Your task to perform on an android device: set the timer Image 0: 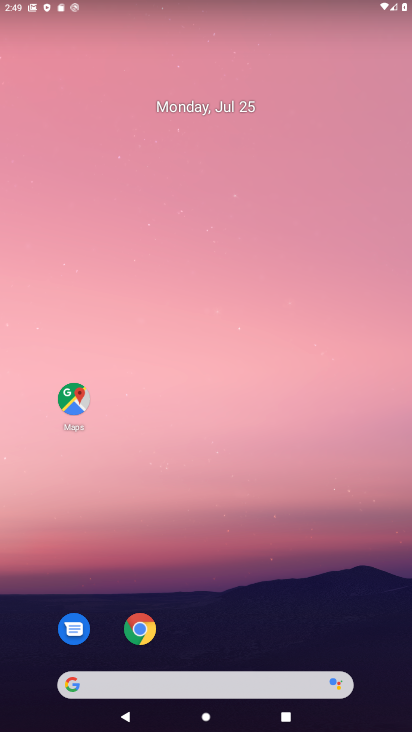
Step 0: drag from (341, 620) to (276, 264)
Your task to perform on an android device: set the timer Image 1: 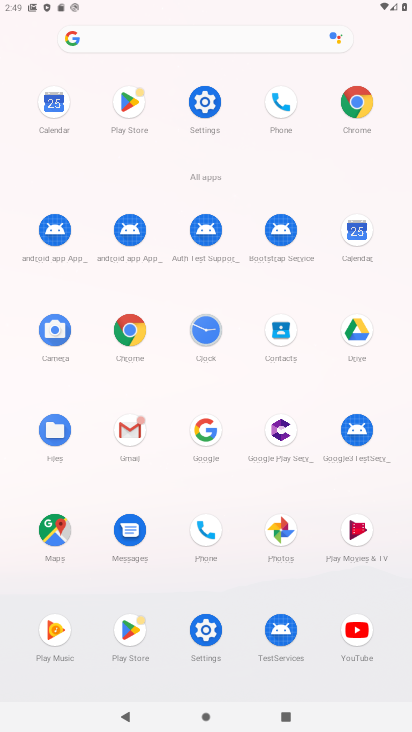
Step 1: click (205, 330)
Your task to perform on an android device: set the timer Image 2: 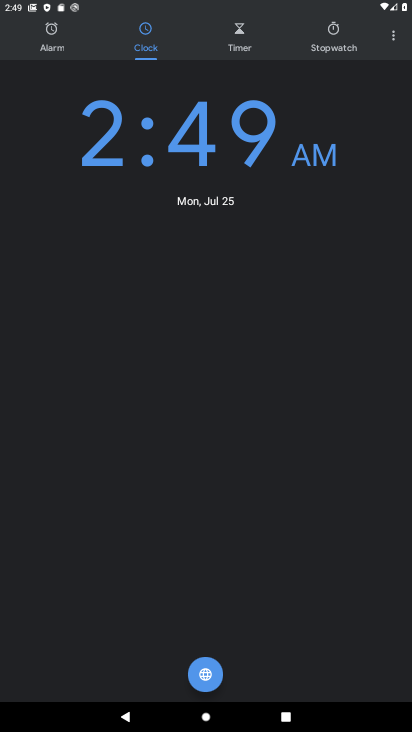
Step 2: click (252, 48)
Your task to perform on an android device: set the timer Image 3: 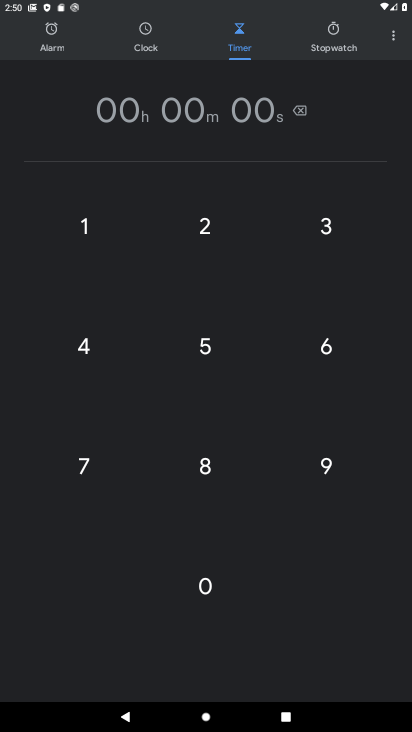
Step 3: type "94u8u48u9"
Your task to perform on an android device: set the timer Image 4: 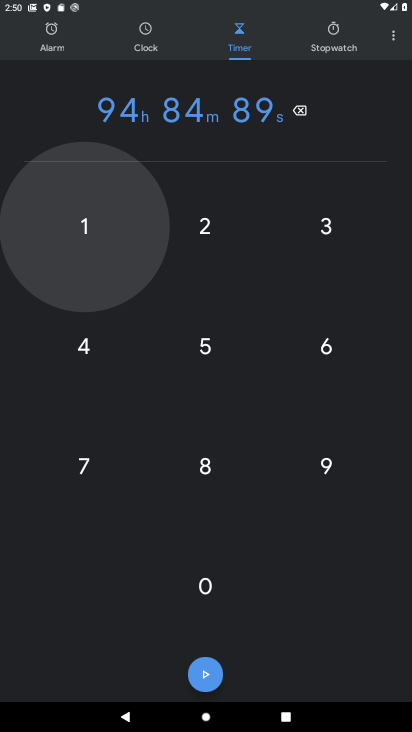
Step 4: click (214, 676)
Your task to perform on an android device: set the timer Image 5: 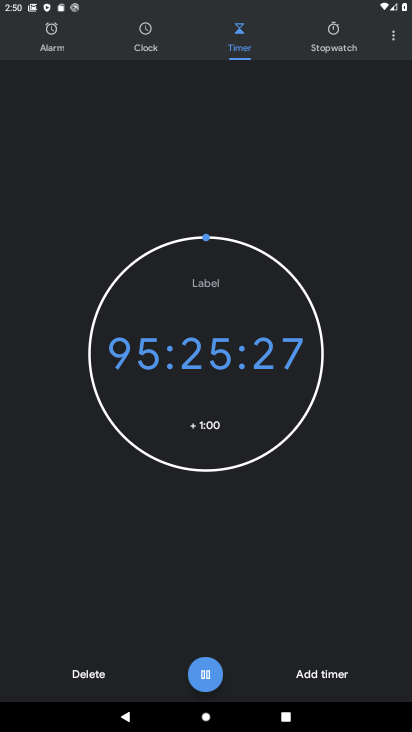
Step 5: task complete